Your task to perform on an android device: check data usage Image 0: 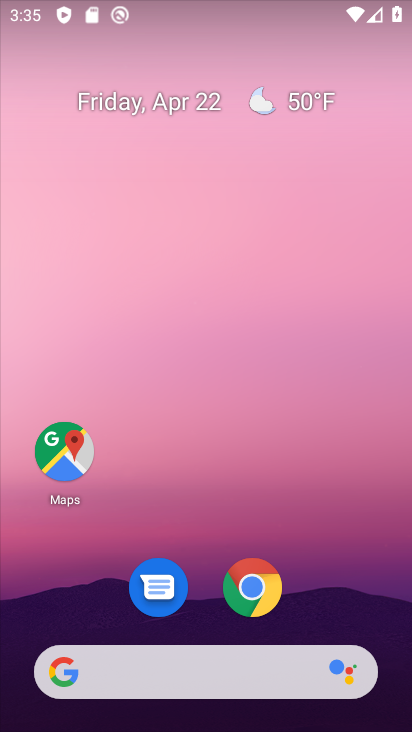
Step 0: drag from (368, 606) to (357, 5)
Your task to perform on an android device: check data usage Image 1: 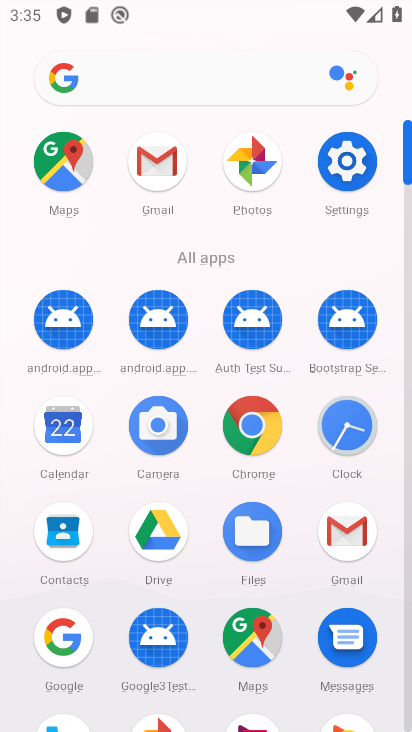
Step 1: click (345, 171)
Your task to perform on an android device: check data usage Image 2: 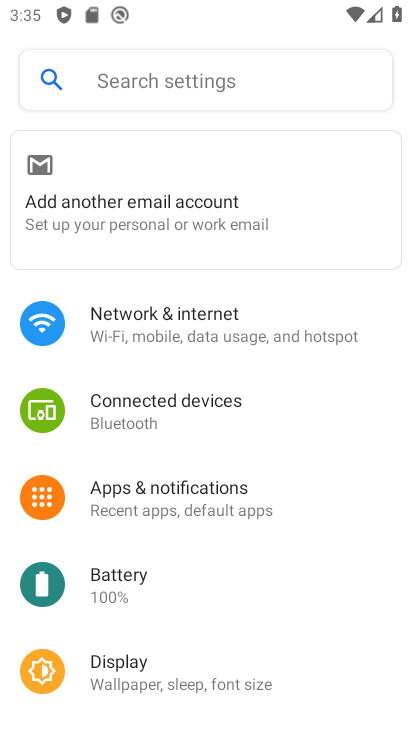
Step 2: click (180, 329)
Your task to perform on an android device: check data usage Image 3: 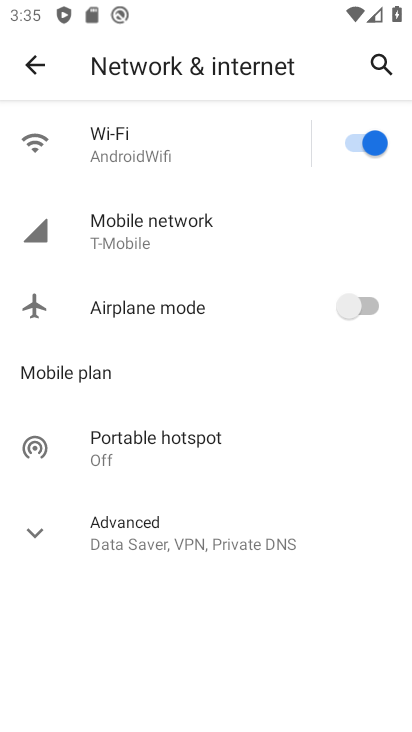
Step 3: click (116, 248)
Your task to perform on an android device: check data usage Image 4: 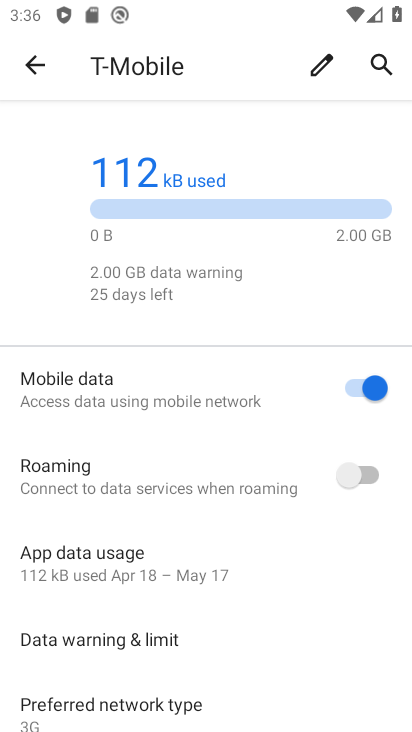
Step 4: click (115, 562)
Your task to perform on an android device: check data usage Image 5: 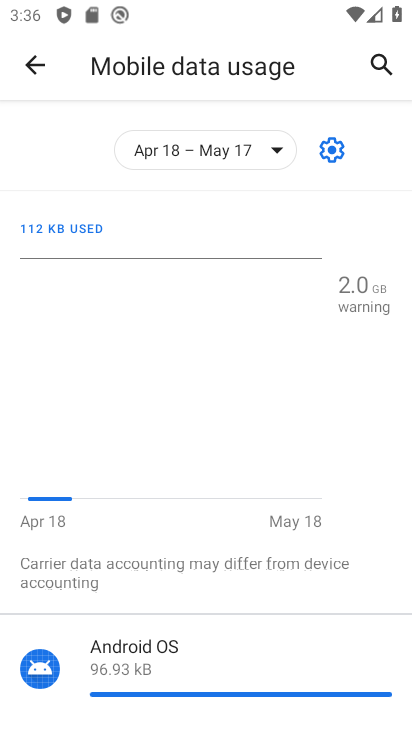
Step 5: task complete